Your task to perform on an android device: move a message to another label in the gmail app Image 0: 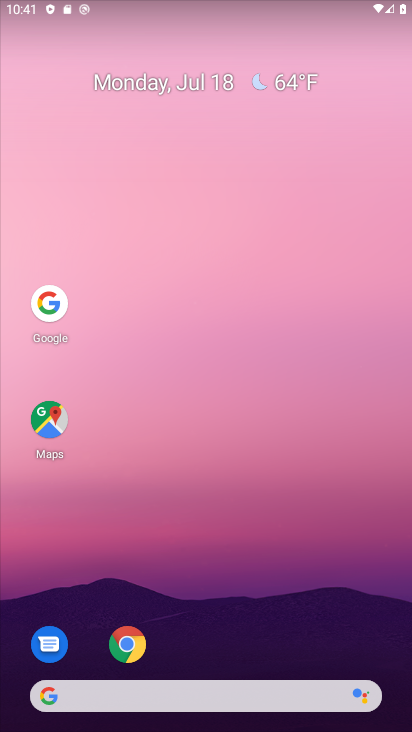
Step 0: drag from (256, 657) to (260, 184)
Your task to perform on an android device: move a message to another label in the gmail app Image 1: 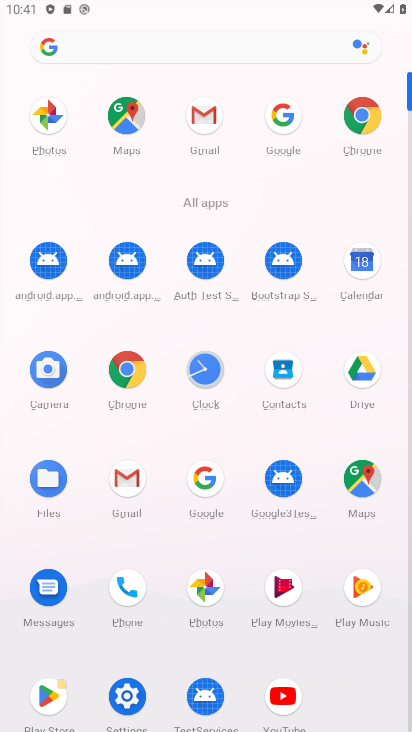
Step 1: click (204, 114)
Your task to perform on an android device: move a message to another label in the gmail app Image 2: 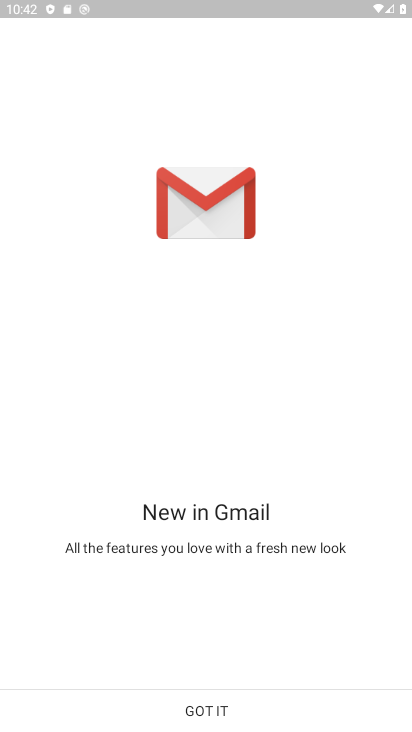
Step 2: click (263, 714)
Your task to perform on an android device: move a message to another label in the gmail app Image 3: 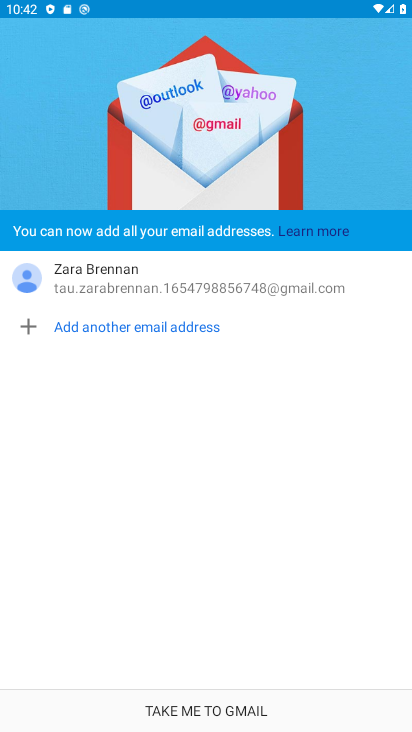
Step 3: click (287, 696)
Your task to perform on an android device: move a message to another label in the gmail app Image 4: 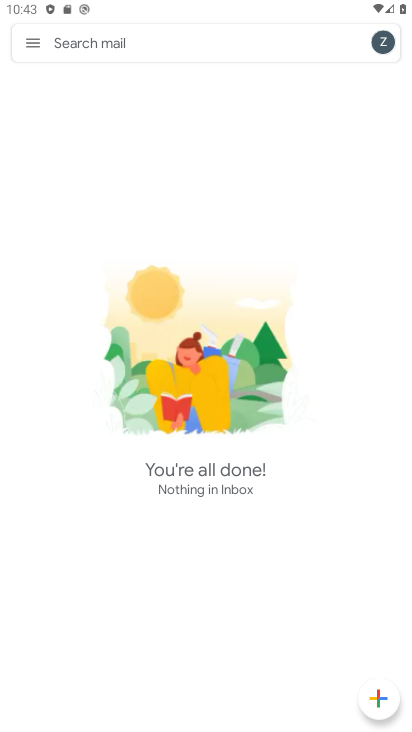
Step 4: click (39, 52)
Your task to perform on an android device: move a message to another label in the gmail app Image 5: 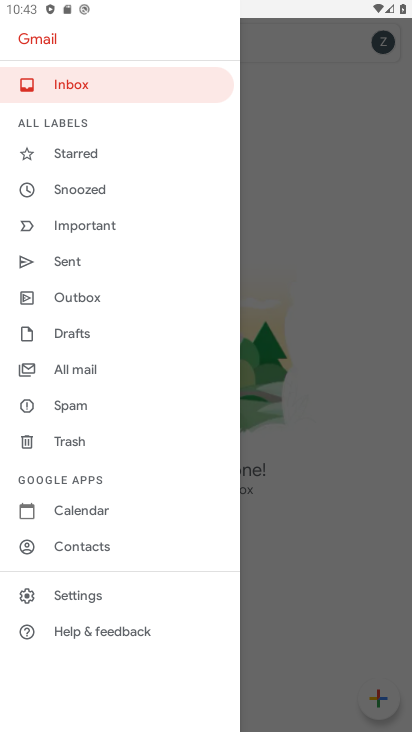
Step 5: click (152, 370)
Your task to perform on an android device: move a message to another label in the gmail app Image 6: 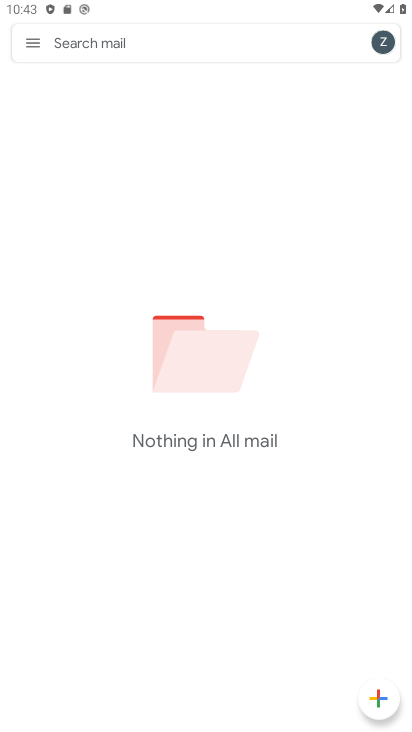
Step 6: task complete